Your task to perform on an android device: Open CNN.com Image 0: 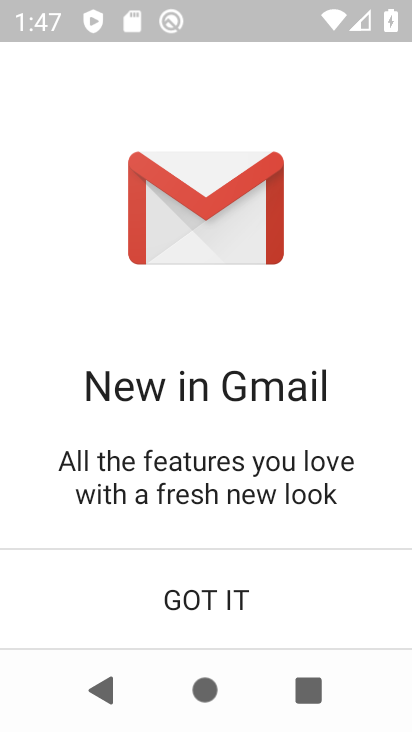
Step 0: press home button
Your task to perform on an android device: Open CNN.com Image 1: 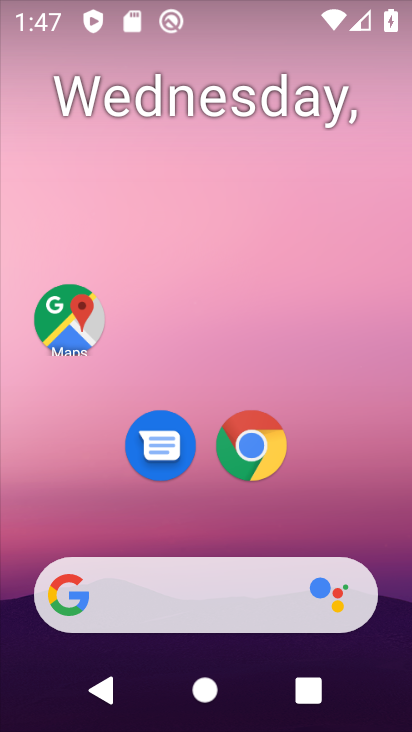
Step 1: click (262, 450)
Your task to perform on an android device: Open CNN.com Image 2: 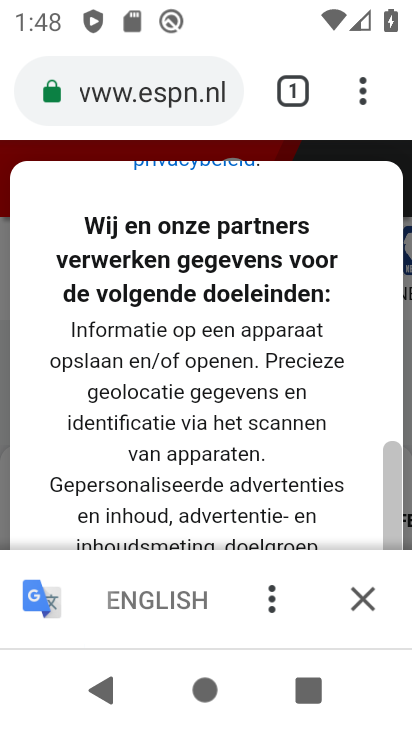
Step 2: click (295, 98)
Your task to perform on an android device: Open CNN.com Image 3: 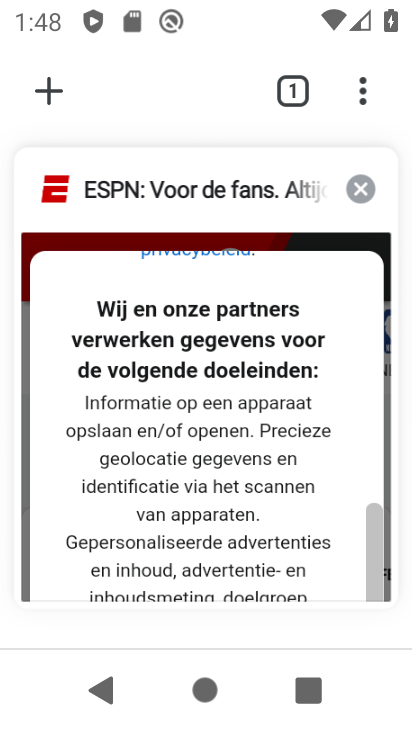
Step 3: click (53, 80)
Your task to perform on an android device: Open CNN.com Image 4: 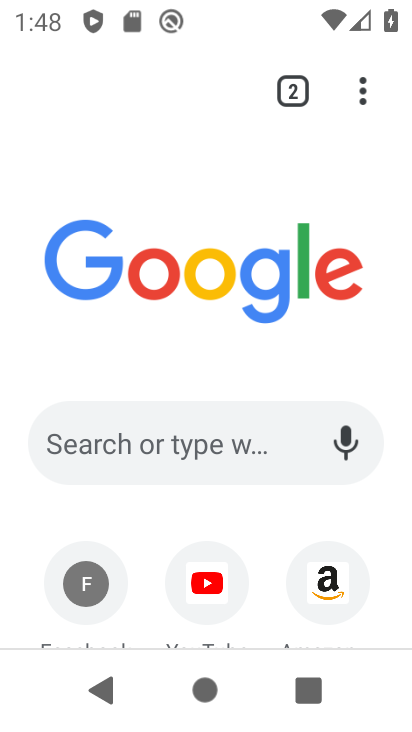
Step 4: click (218, 434)
Your task to perform on an android device: Open CNN.com Image 5: 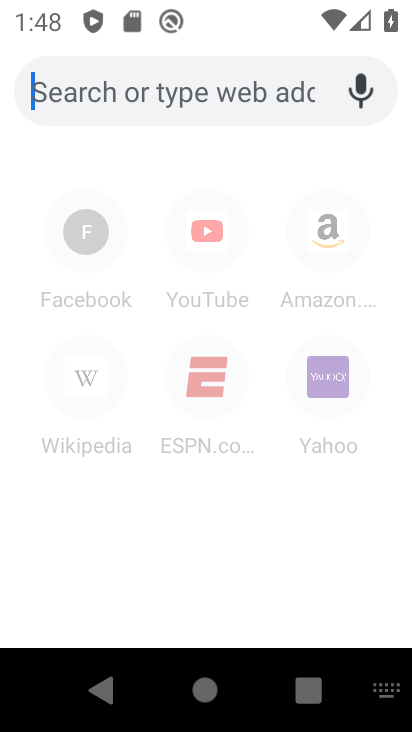
Step 5: type "CNN.com"
Your task to perform on an android device: Open CNN.com Image 6: 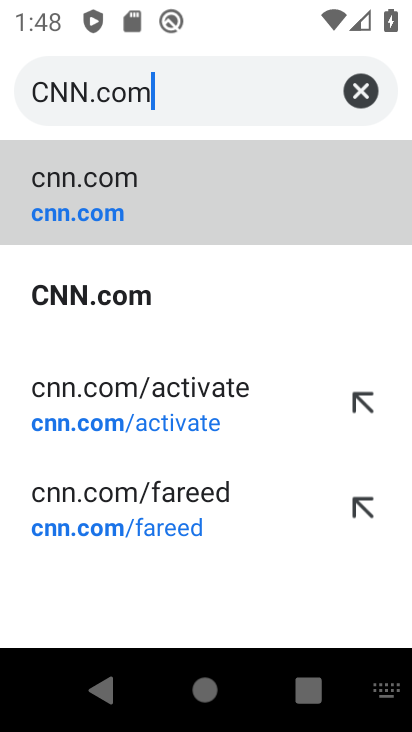
Step 6: click (166, 182)
Your task to perform on an android device: Open CNN.com Image 7: 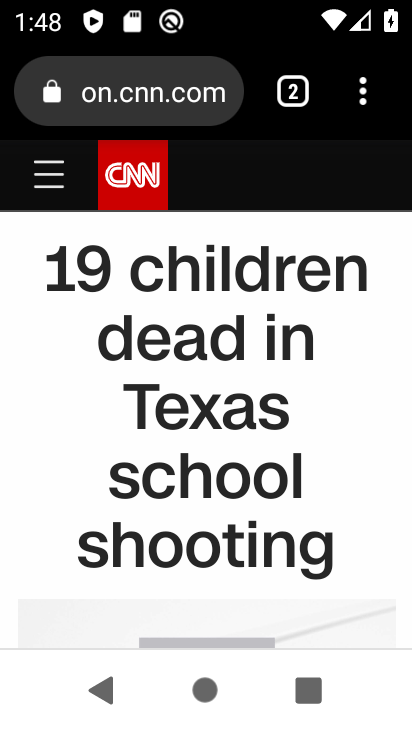
Step 7: task complete